Your task to perform on an android device: toggle notification dots Image 0: 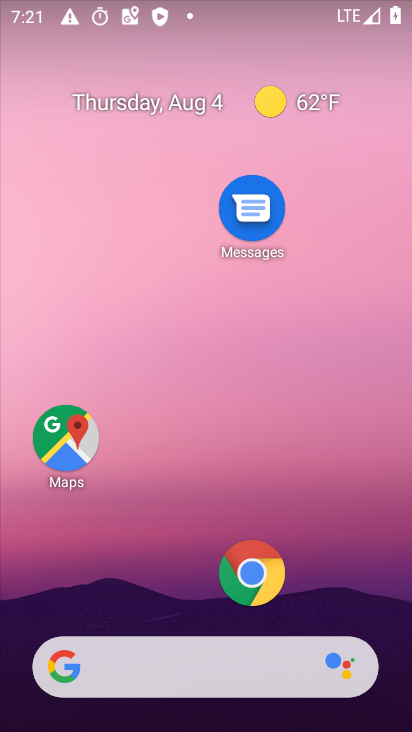
Step 0: press home button
Your task to perform on an android device: toggle notification dots Image 1: 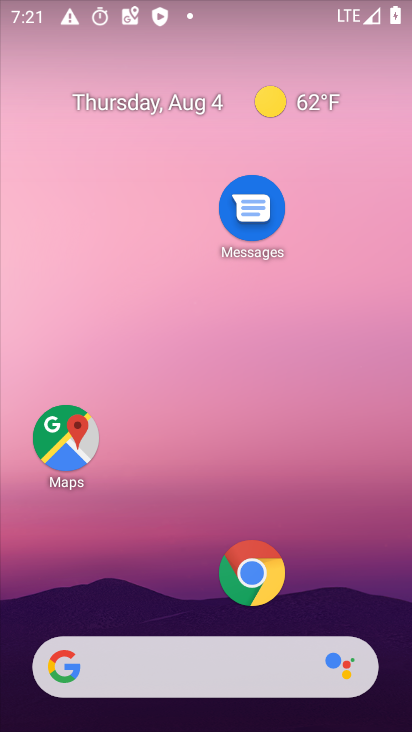
Step 1: drag from (206, 600) to (193, 277)
Your task to perform on an android device: toggle notification dots Image 2: 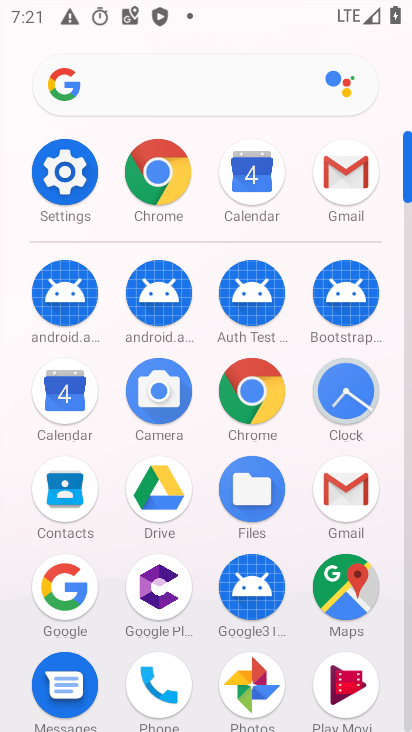
Step 2: click (78, 167)
Your task to perform on an android device: toggle notification dots Image 3: 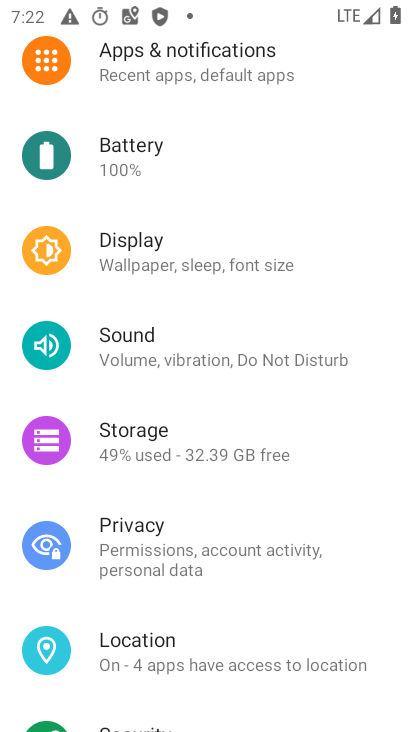
Step 3: click (198, 55)
Your task to perform on an android device: toggle notification dots Image 4: 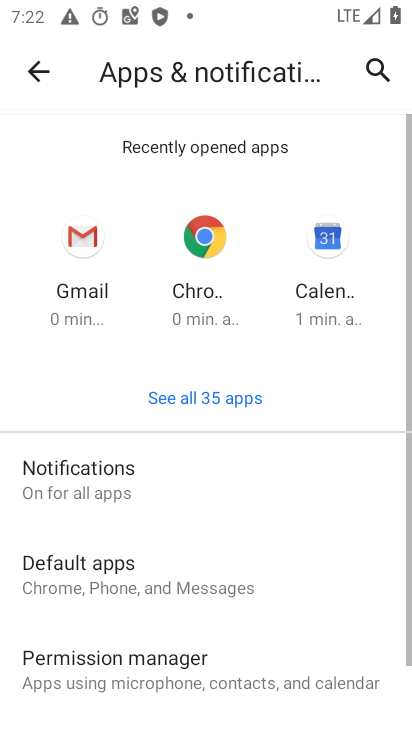
Step 4: click (105, 472)
Your task to perform on an android device: toggle notification dots Image 5: 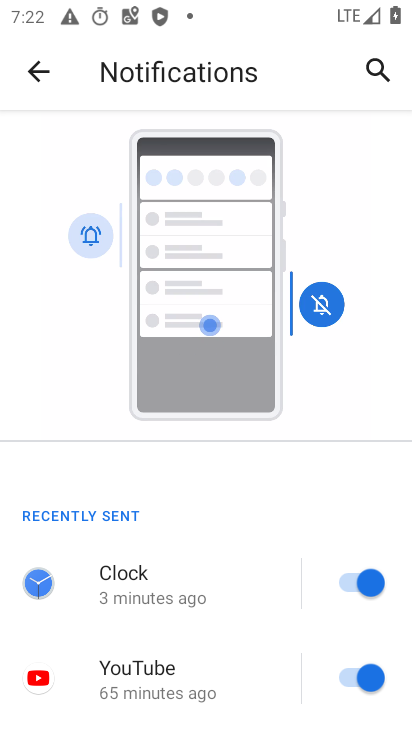
Step 5: drag from (272, 651) to (167, 196)
Your task to perform on an android device: toggle notification dots Image 6: 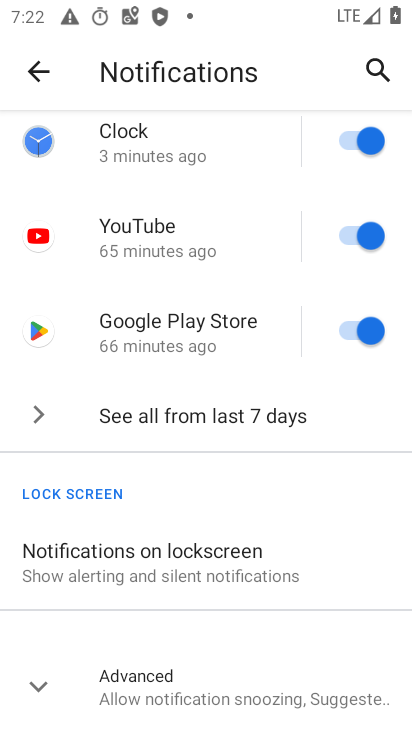
Step 6: drag from (303, 633) to (227, 371)
Your task to perform on an android device: toggle notification dots Image 7: 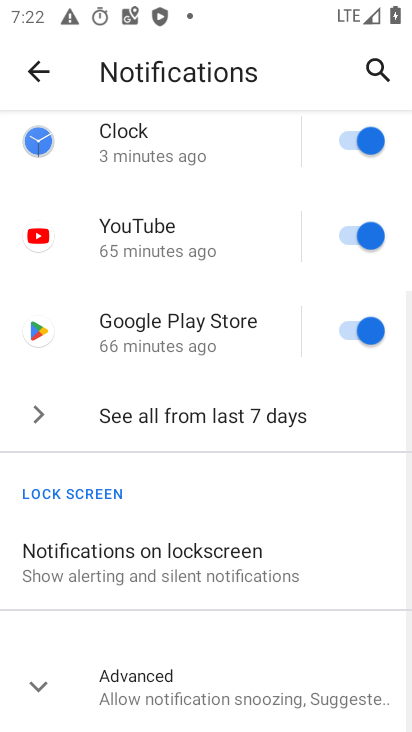
Step 7: click (158, 681)
Your task to perform on an android device: toggle notification dots Image 8: 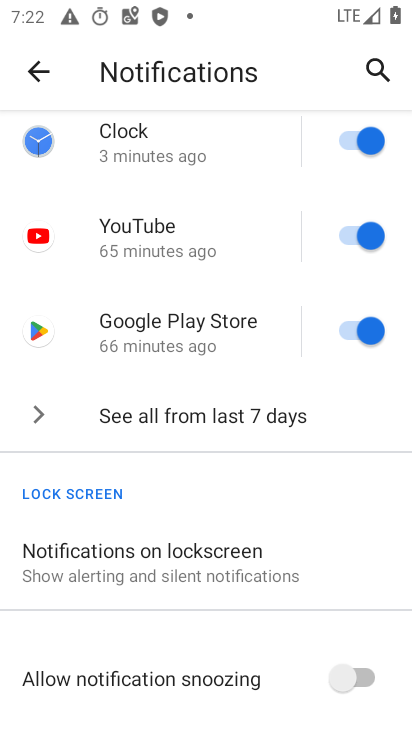
Step 8: drag from (276, 706) to (246, 441)
Your task to perform on an android device: toggle notification dots Image 9: 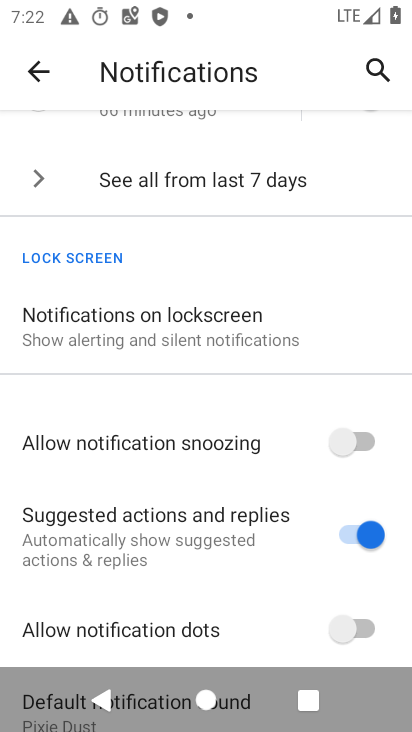
Step 9: click (349, 626)
Your task to perform on an android device: toggle notification dots Image 10: 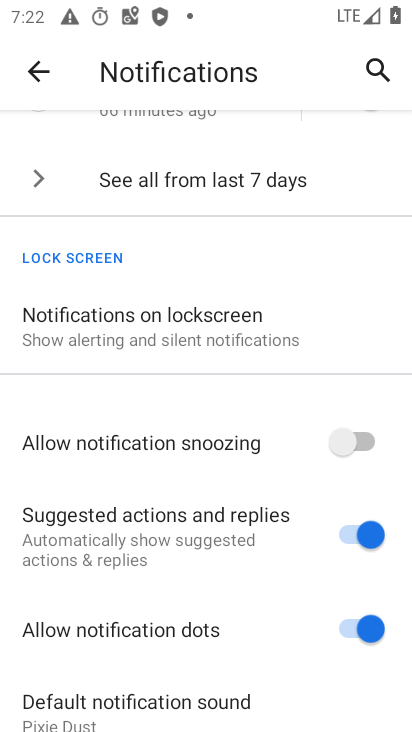
Step 10: task complete